Your task to perform on an android device: open chrome and create a bookmark for the current page Image 0: 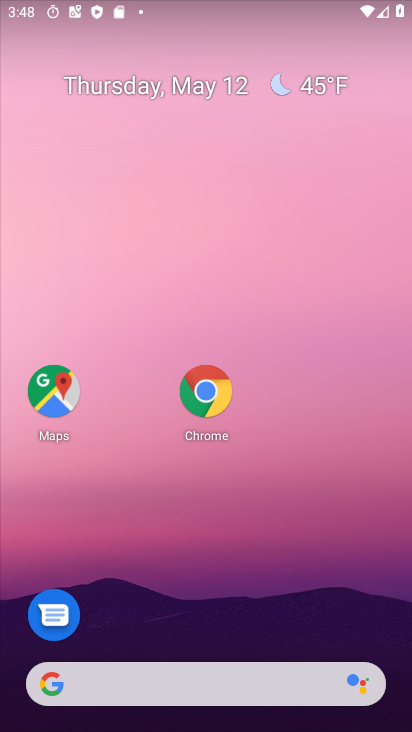
Step 0: click (207, 397)
Your task to perform on an android device: open chrome and create a bookmark for the current page Image 1: 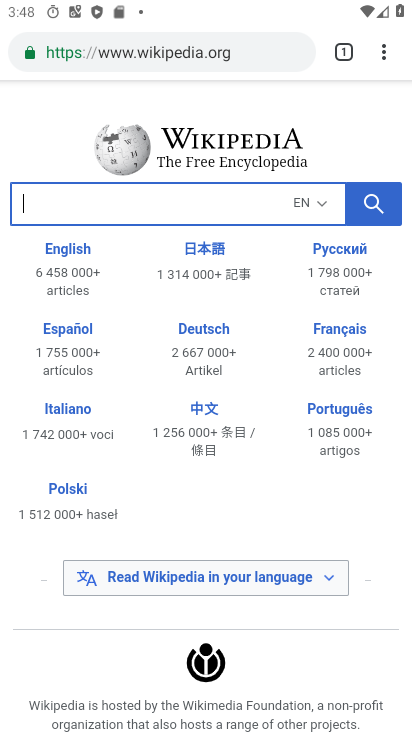
Step 1: click (373, 54)
Your task to perform on an android device: open chrome and create a bookmark for the current page Image 2: 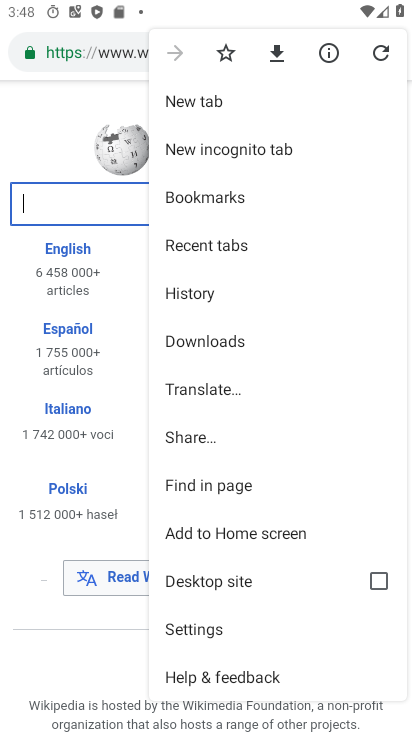
Step 2: click (218, 50)
Your task to perform on an android device: open chrome and create a bookmark for the current page Image 3: 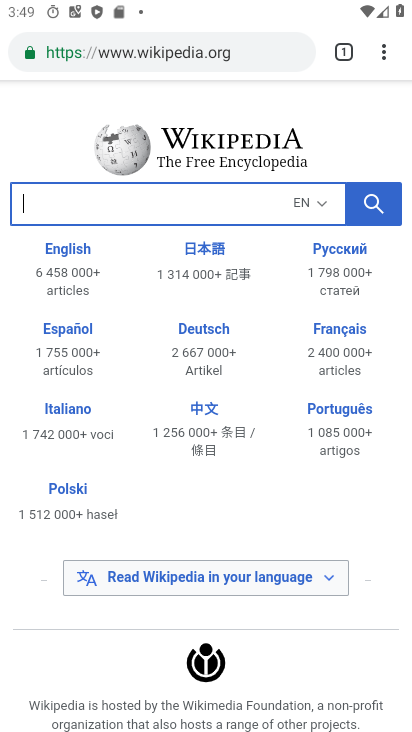
Step 3: task complete